Your task to perform on an android device: Show me popular videos on Youtube Image 0: 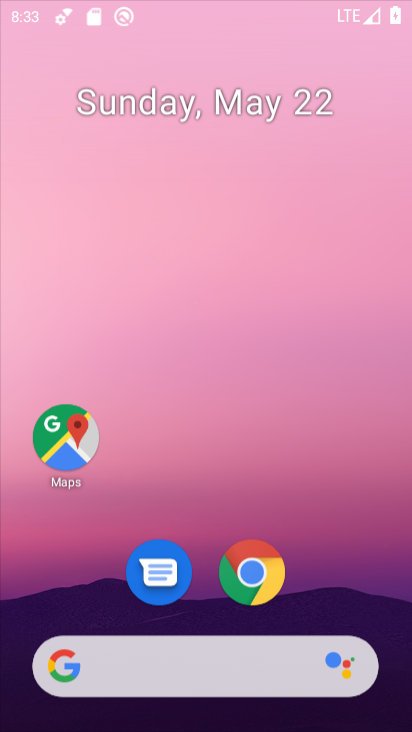
Step 0: click (295, 100)
Your task to perform on an android device: Show me popular videos on Youtube Image 1: 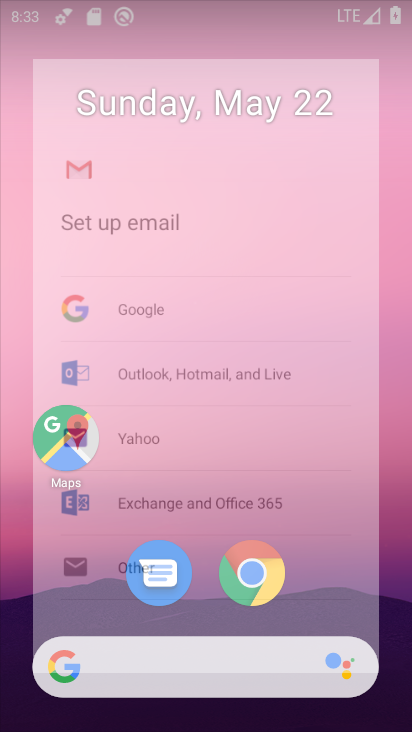
Step 1: drag from (228, 544) to (273, 153)
Your task to perform on an android device: Show me popular videos on Youtube Image 2: 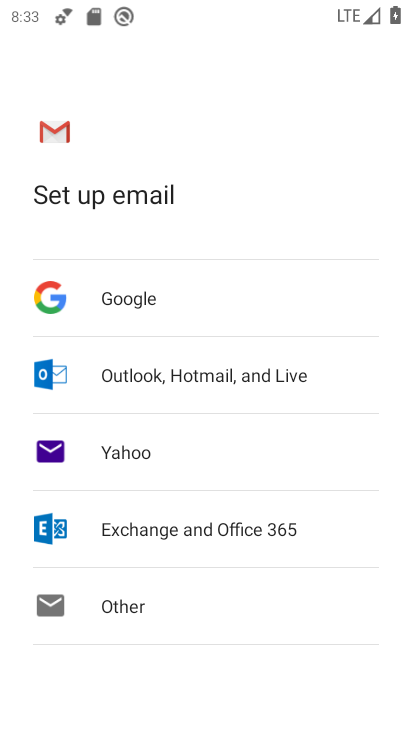
Step 2: press home button
Your task to perform on an android device: Show me popular videos on Youtube Image 3: 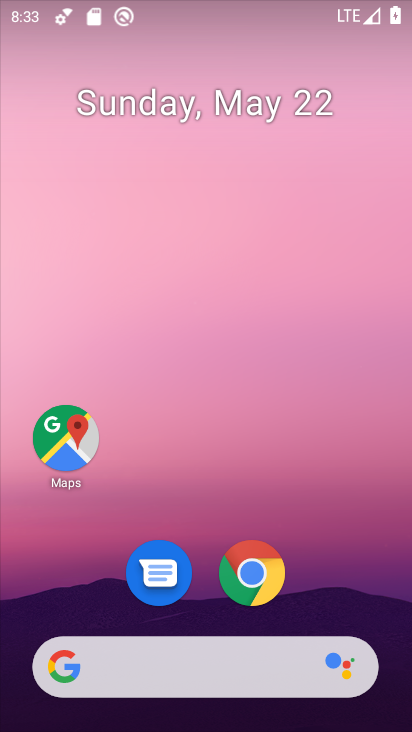
Step 3: drag from (178, 585) to (269, 128)
Your task to perform on an android device: Show me popular videos on Youtube Image 4: 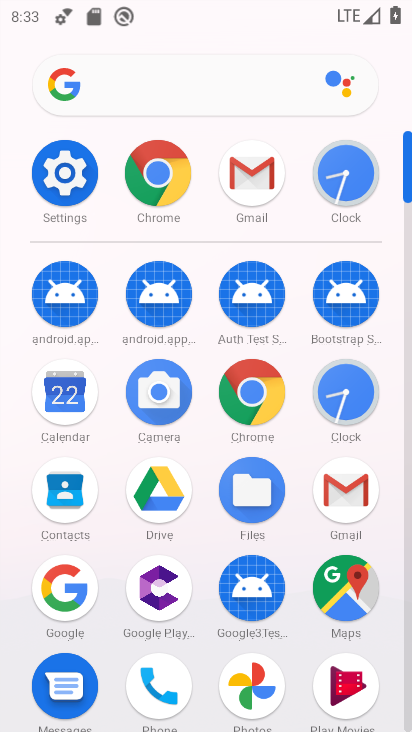
Step 4: drag from (193, 647) to (246, 124)
Your task to perform on an android device: Show me popular videos on Youtube Image 5: 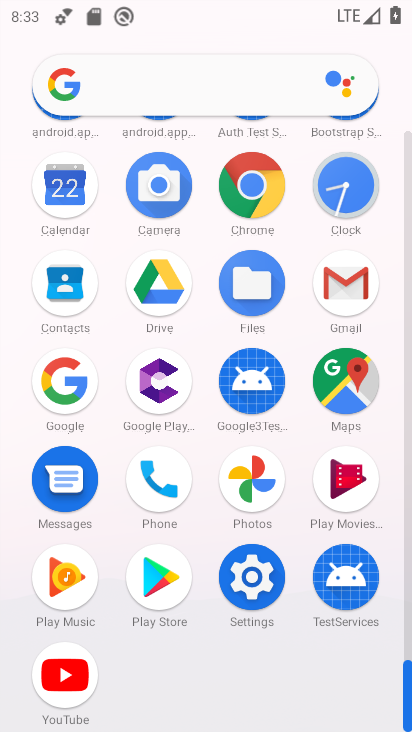
Step 5: click (56, 689)
Your task to perform on an android device: Show me popular videos on Youtube Image 6: 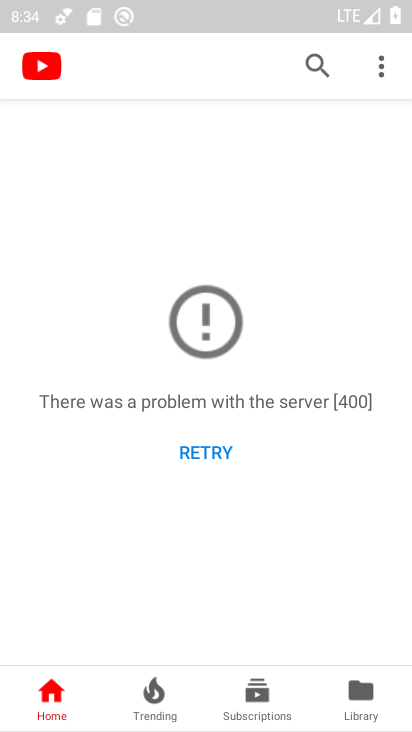
Step 6: task complete